Your task to perform on an android device: change the clock style Image 0: 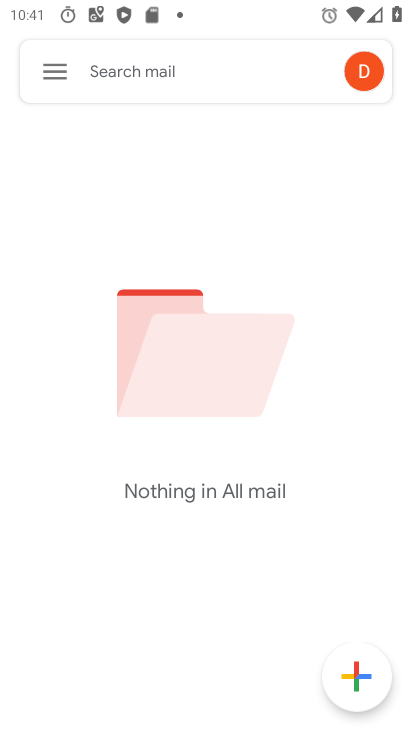
Step 0: press home button
Your task to perform on an android device: change the clock style Image 1: 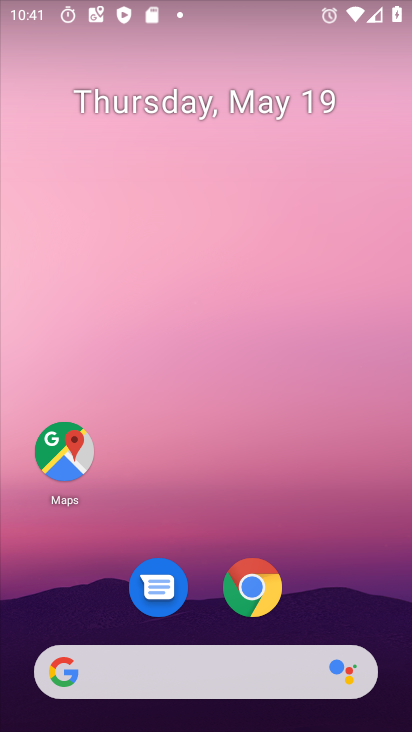
Step 1: drag from (375, 606) to (349, 179)
Your task to perform on an android device: change the clock style Image 2: 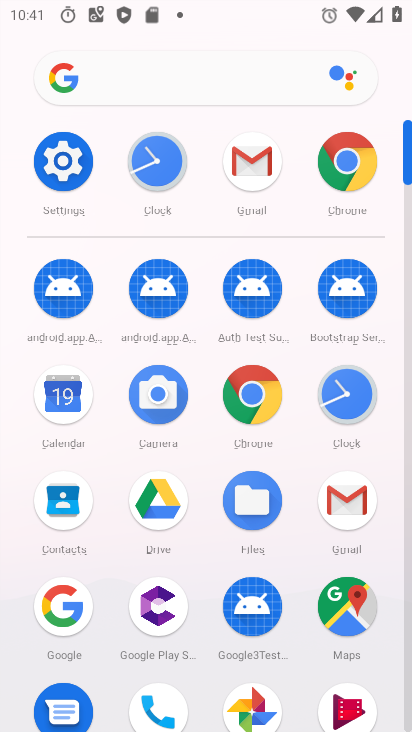
Step 2: click (167, 166)
Your task to perform on an android device: change the clock style Image 3: 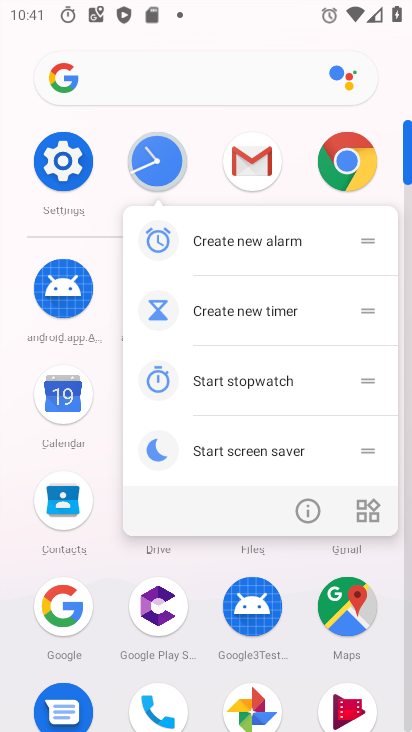
Step 3: click (158, 172)
Your task to perform on an android device: change the clock style Image 4: 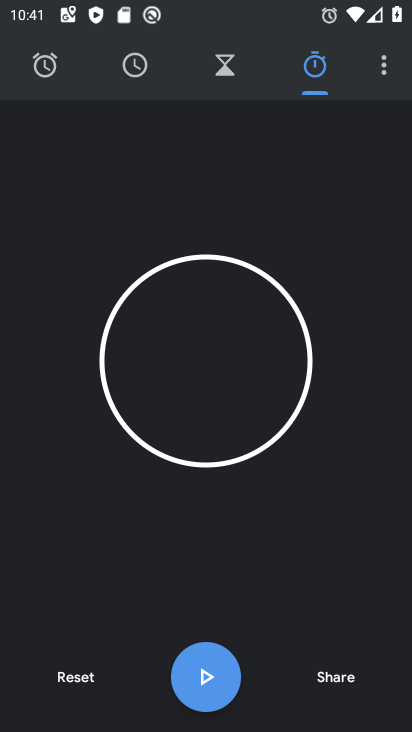
Step 4: drag from (392, 75) to (243, 125)
Your task to perform on an android device: change the clock style Image 5: 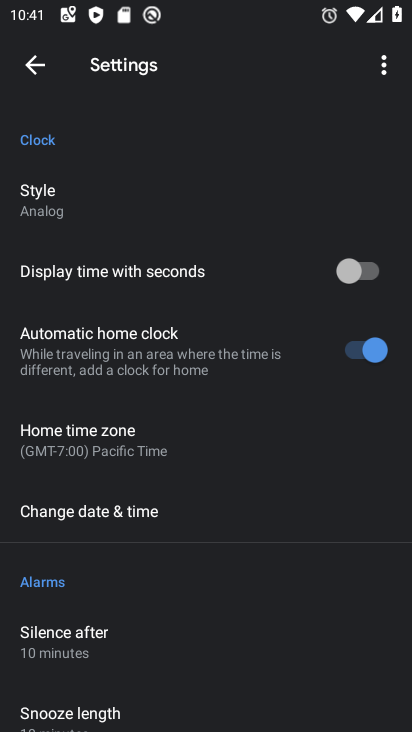
Step 5: click (186, 215)
Your task to perform on an android device: change the clock style Image 6: 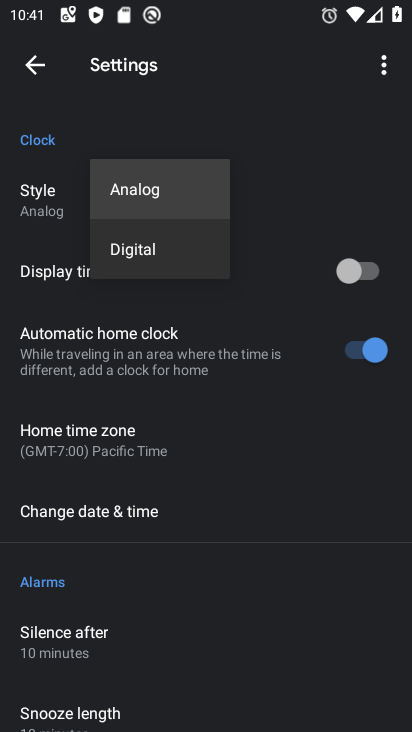
Step 6: click (179, 260)
Your task to perform on an android device: change the clock style Image 7: 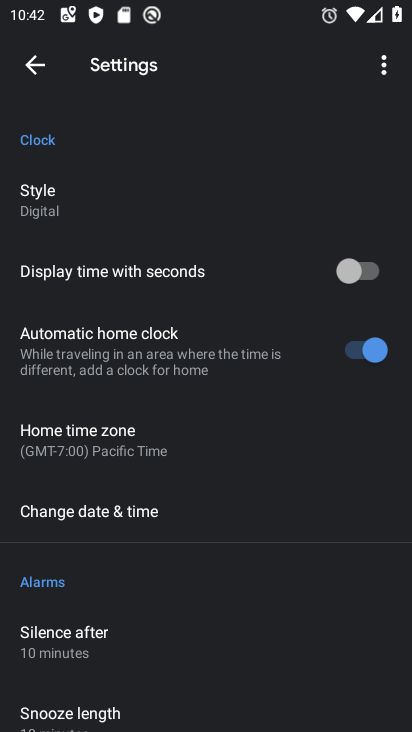
Step 7: task complete